Your task to perform on an android device: change timer sound Image 0: 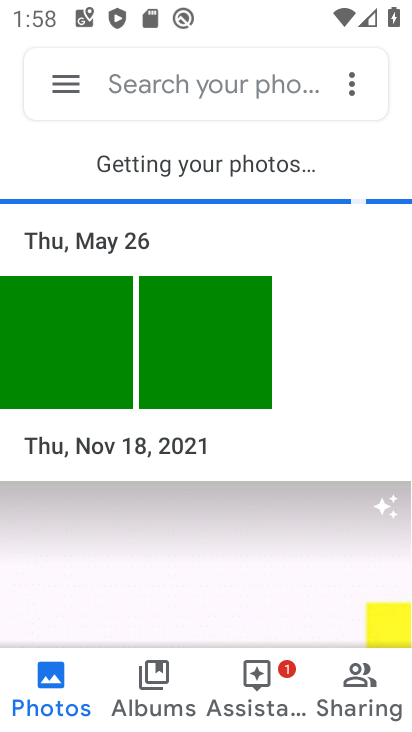
Step 0: press home button
Your task to perform on an android device: change timer sound Image 1: 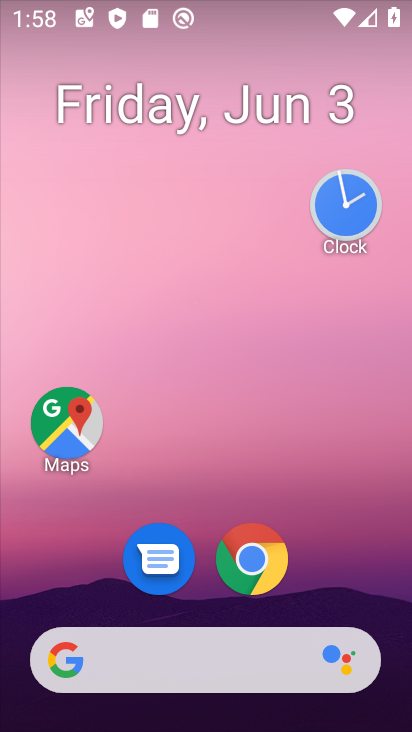
Step 1: drag from (373, 510) to (310, 259)
Your task to perform on an android device: change timer sound Image 2: 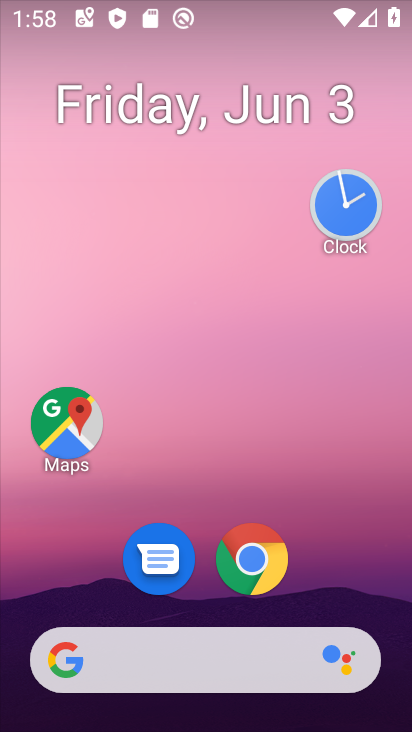
Step 2: drag from (350, 577) to (304, 277)
Your task to perform on an android device: change timer sound Image 3: 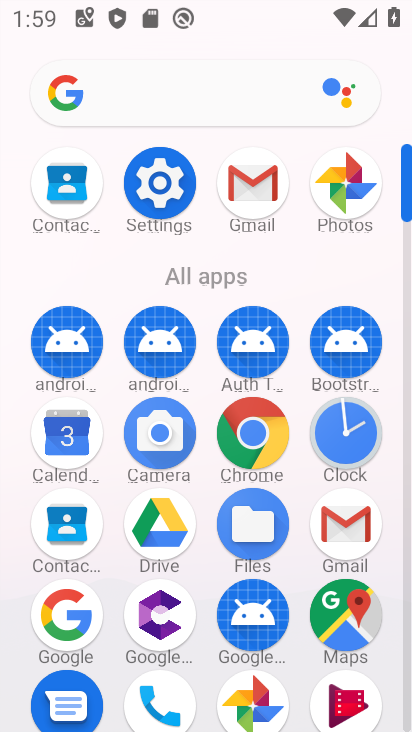
Step 3: click (347, 430)
Your task to perform on an android device: change timer sound Image 4: 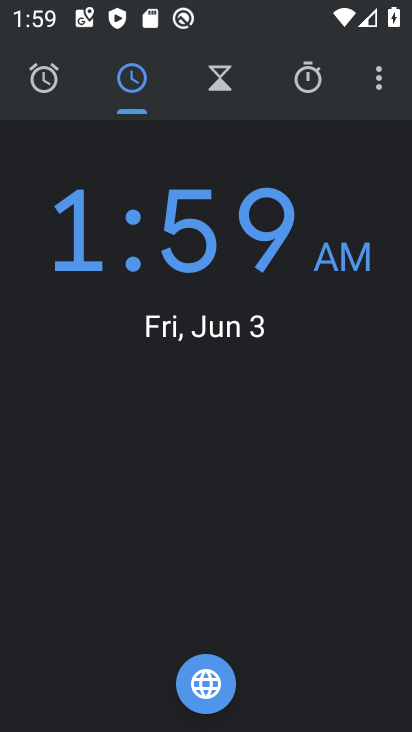
Step 4: click (382, 56)
Your task to perform on an android device: change timer sound Image 5: 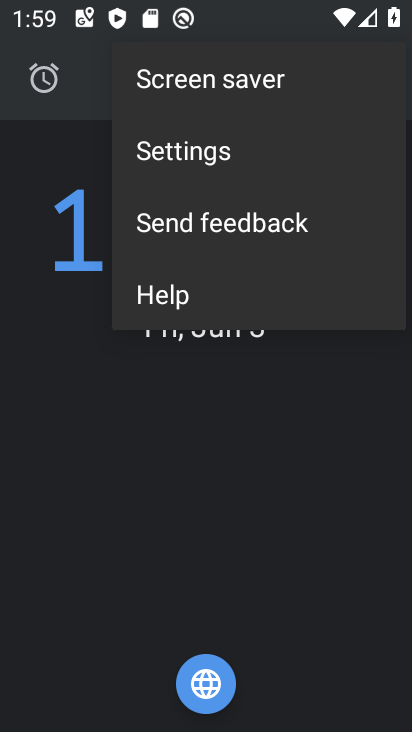
Step 5: click (353, 173)
Your task to perform on an android device: change timer sound Image 6: 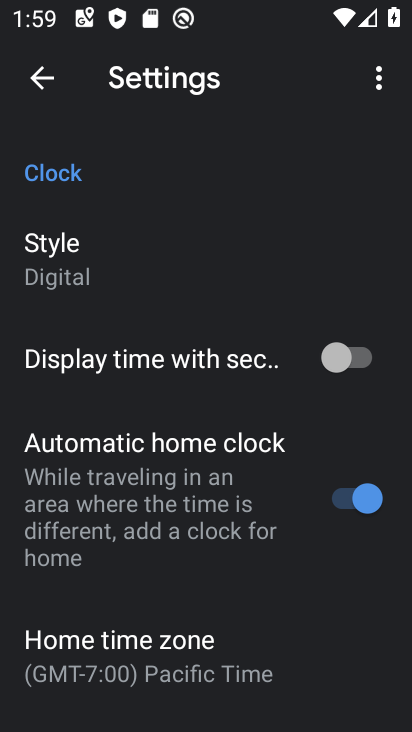
Step 6: drag from (347, 621) to (311, 478)
Your task to perform on an android device: change timer sound Image 7: 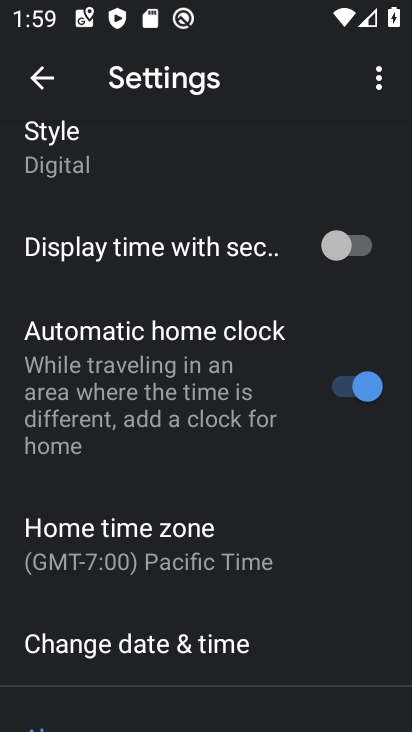
Step 7: drag from (304, 544) to (286, 320)
Your task to perform on an android device: change timer sound Image 8: 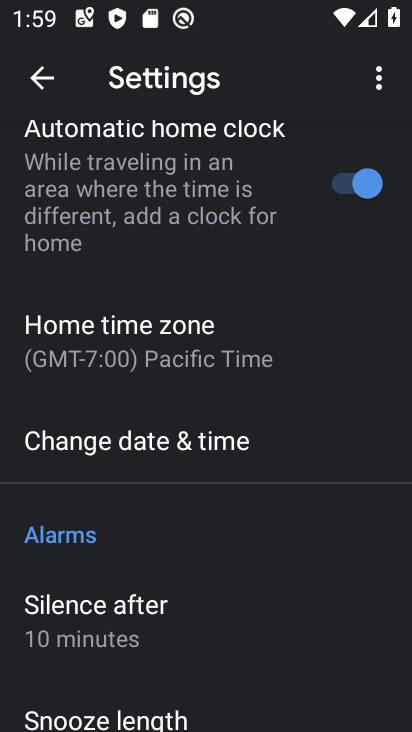
Step 8: drag from (286, 497) to (259, 273)
Your task to perform on an android device: change timer sound Image 9: 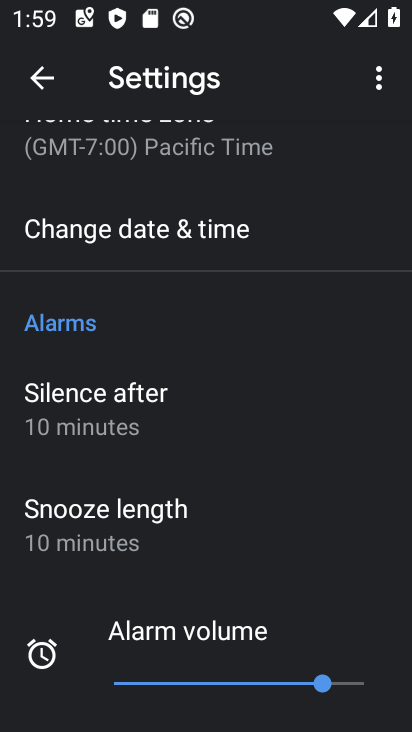
Step 9: drag from (256, 458) to (246, 195)
Your task to perform on an android device: change timer sound Image 10: 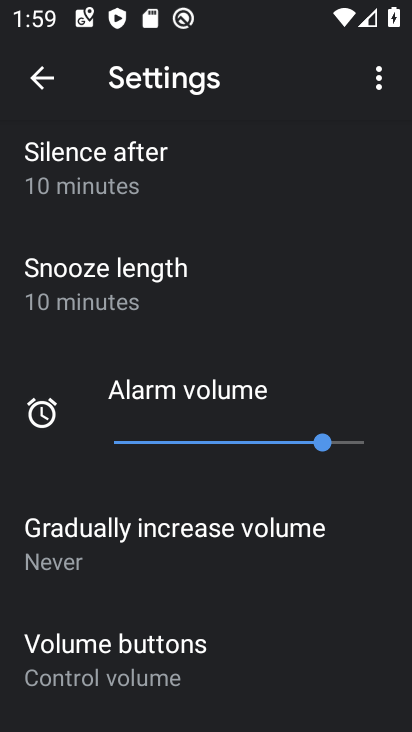
Step 10: drag from (294, 580) to (358, 312)
Your task to perform on an android device: change timer sound Image 11: 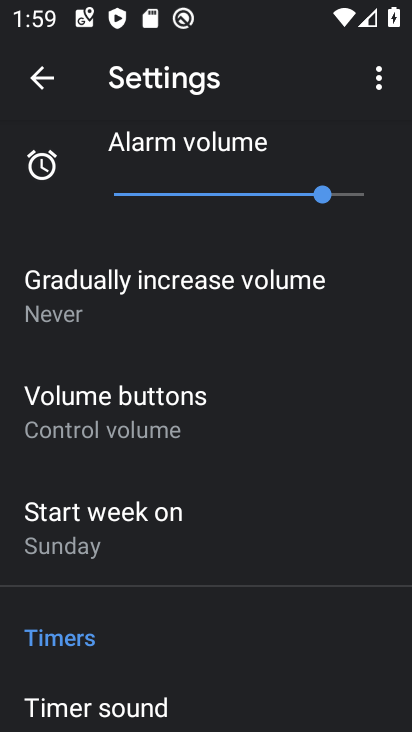
Step 11: drag from (313, 514) to (294, 315)
Your task to perform on an android device: change timer sound Image 12: 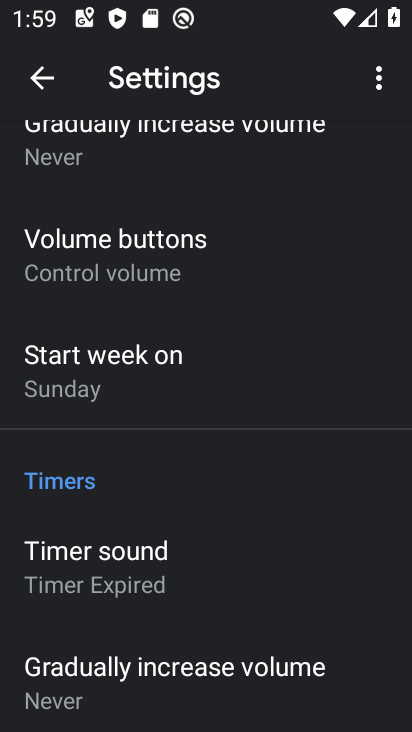
Step 12: click (178, 544)
Your task to perform on an android device: change timer sound Image 13: 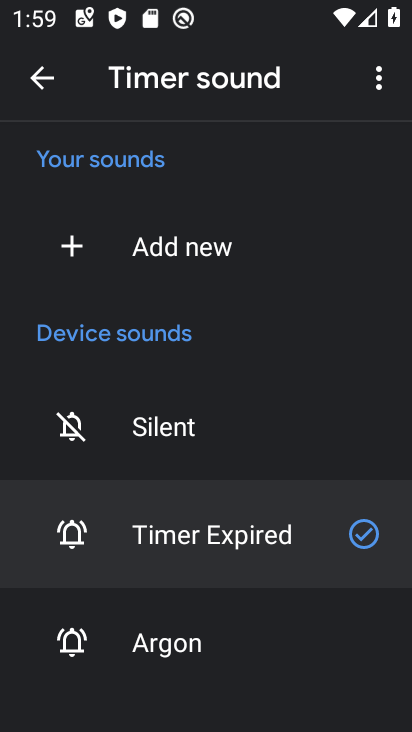
Step 13: click (235, 638)
Your task to perform on an android device: change timer sound Image 14: 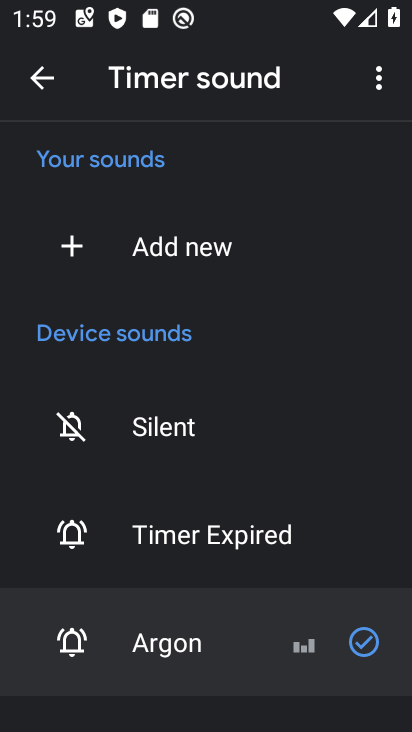
Step 14: task complete